Your task to perform on an android device: Open calendar and show me the fourth week of next month Image 0: 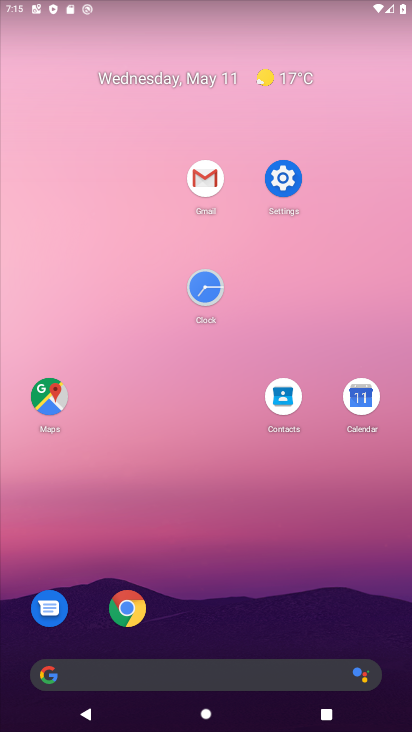
Step 0: click (315, 529)
Your task to perform on an android device: Open calendar and show me the fourth week of next month Image 1: 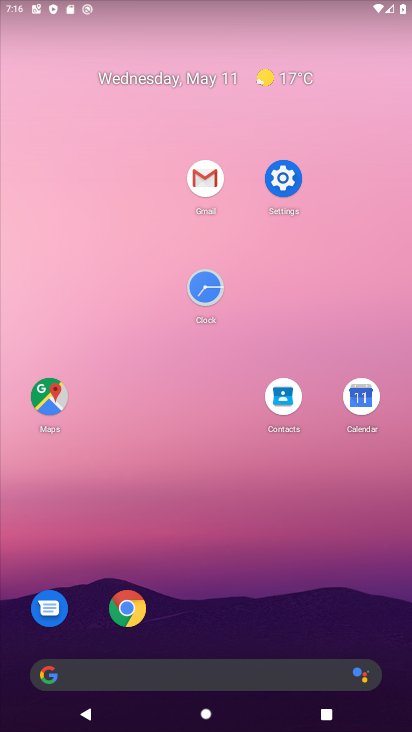
Step 1: click (357, 398)
Your task to perform on an android device: Open calendar and show me the fourth week of next month Image 2: 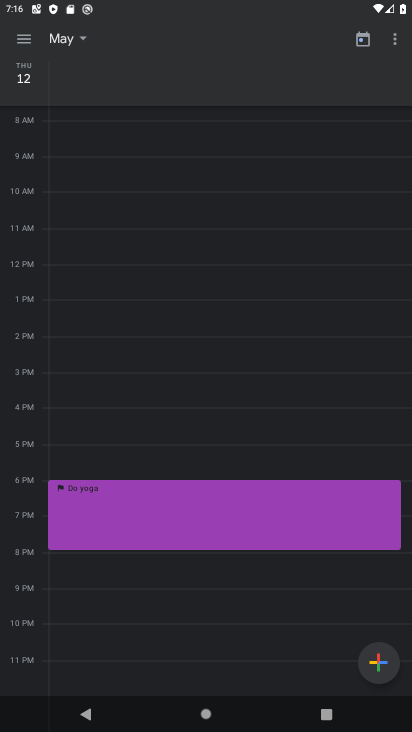
Step 2: click (76, 34)
Your task to perform on an android device: Open calendar and show me the fourth week of next month Image 3: 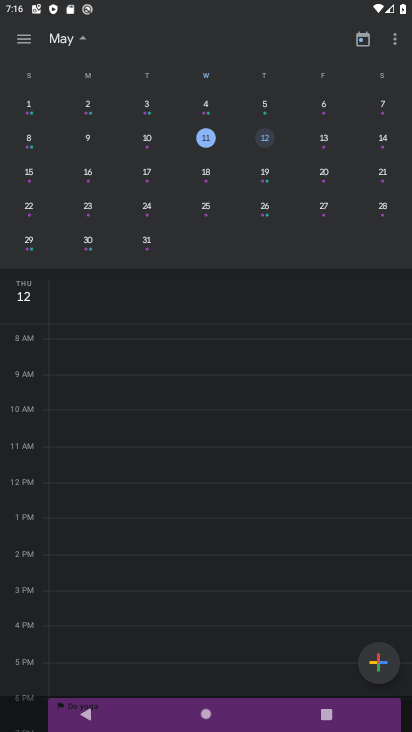
Step 3: drag from (377, 225) to (3, 225)
Your task to perform on an android device: Open calendar and show me the fourth week of next month Image 4: 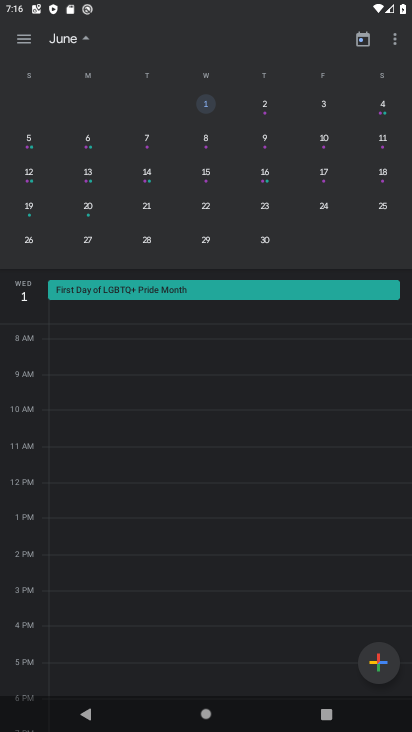
Step 4: click (209, 237)
Your task to perform on an android device: Open calendar and show me the fourth week of next month Image 5: 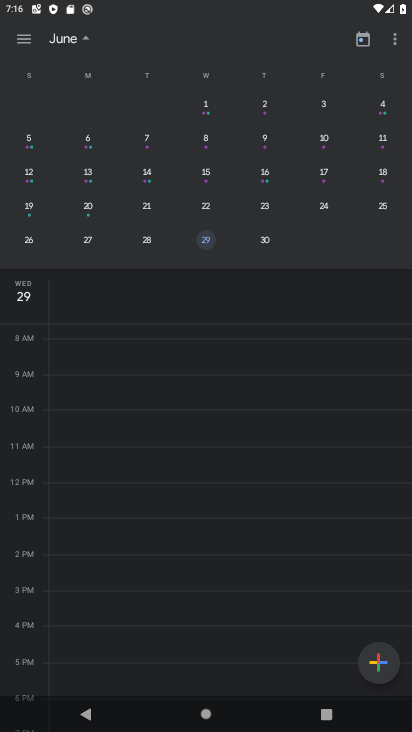
Step 5: task complete